Your task to perform on an android device: Go to sound settings Image 0: 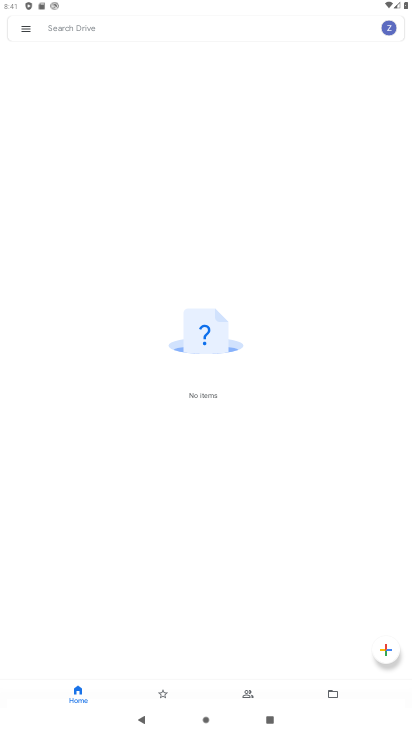
Step 0: press home button
Your task to perform on an android device: Go to sound settings Image 1: 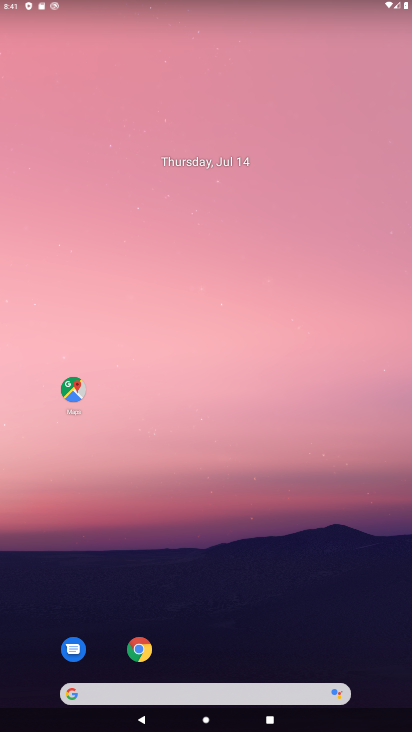
Step 1: drag from (202, 617) to (193, 130)
Your task to perform on an android device: Go to sound settings Image 2: 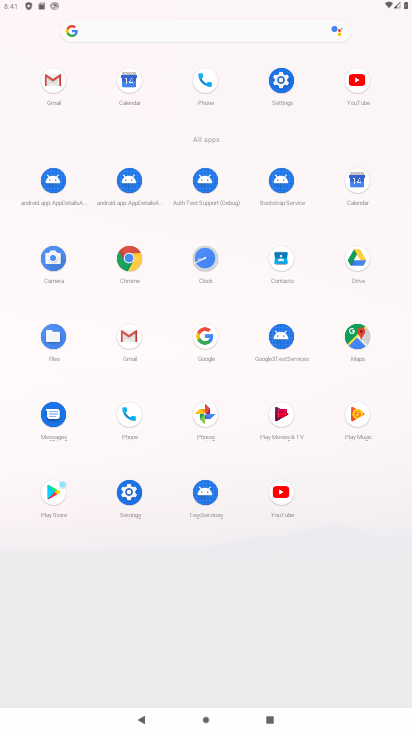
Step 2: click (276, 79)
Your task to perform on an android device: Go to sound settings Image 3: 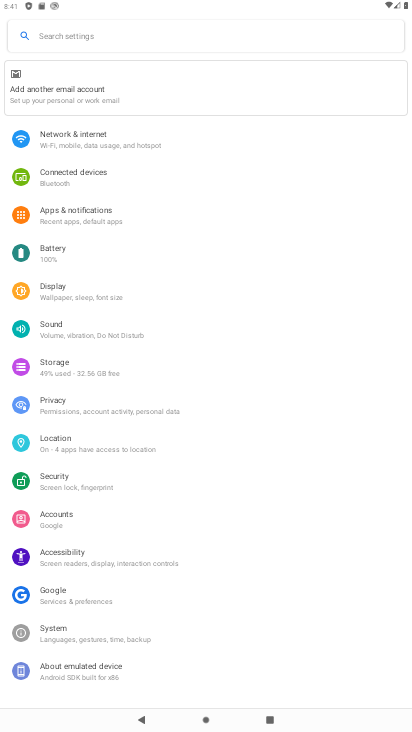
Step 3: click (97, 334)
Your task to perform on an android device: Go to sound settings Image 4: 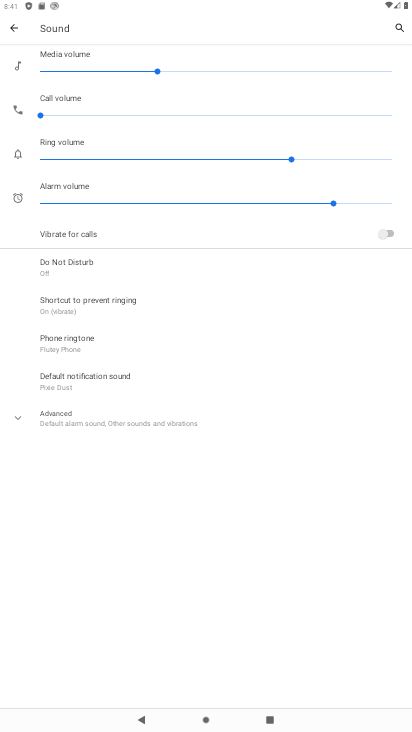
Step 4: task complete